Your task to perform on an android device: turn vacation reply on in the gmail app Image 0: 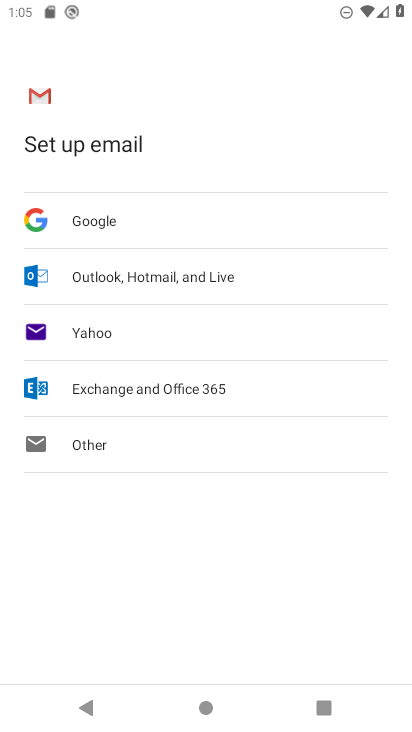
Step 0: press home button
Your task to perform on an android device: turn vacation reply on in the gmail app Image 1: 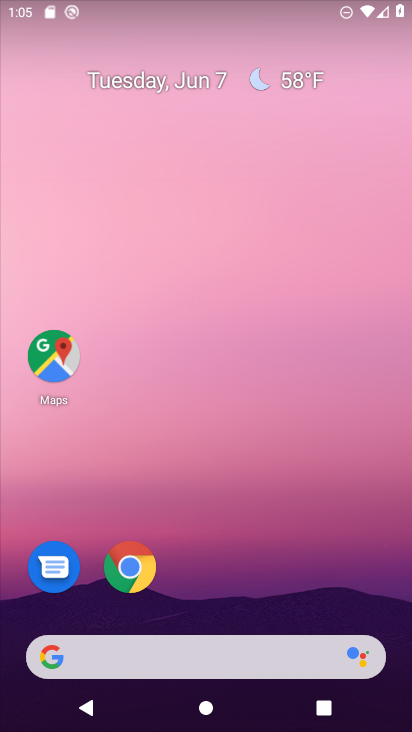
Step 1: drag from (380, 477) to (363, 105)
Your task to perform on an android device: turn vacation reply on in the gmail app Image 2: 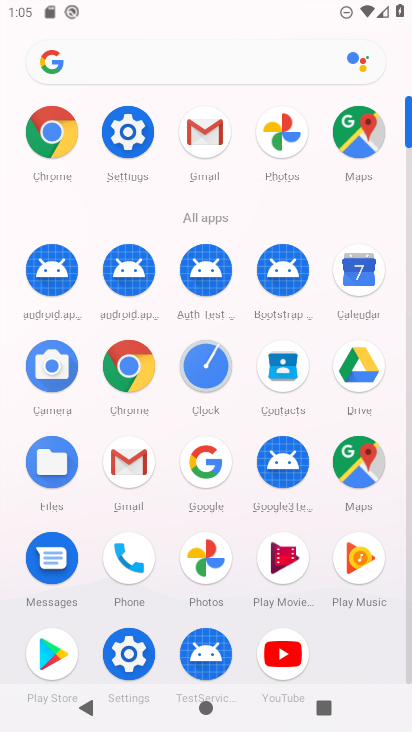
Step 2: click (190, 461)
Your task to perform on an android device: turn vacation reply on in the gmail app Image 3: 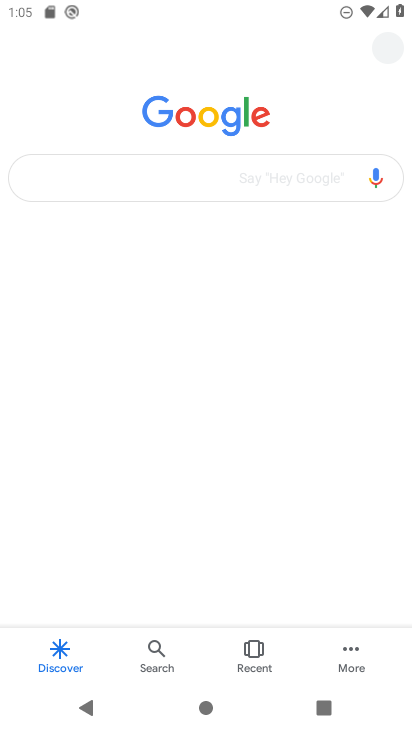
Step 3: press back button
Your task to perform on an android device: turn vacation reply on in the gmail app Image 4: 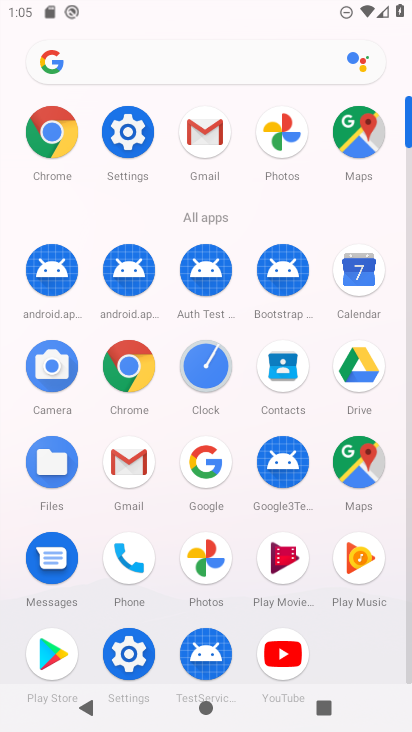
Step 4: click (346, 270)
Your task to perform on an android device: turn vacation reply on in the gmail app Image 5: 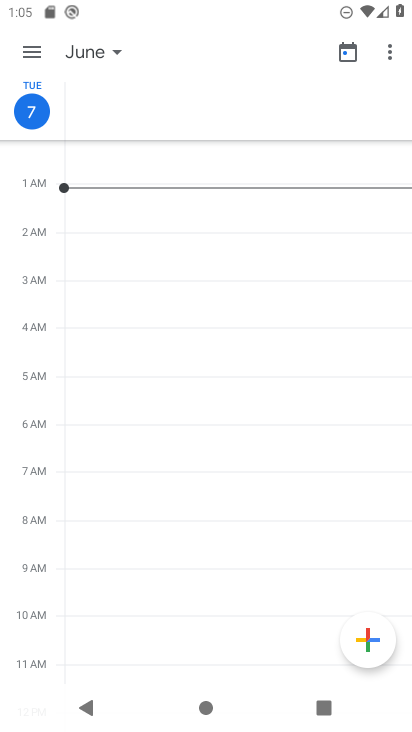
Step 5: press back button
Your task to perform on an android device: turn vacation reply on in the gmail app Image 6: 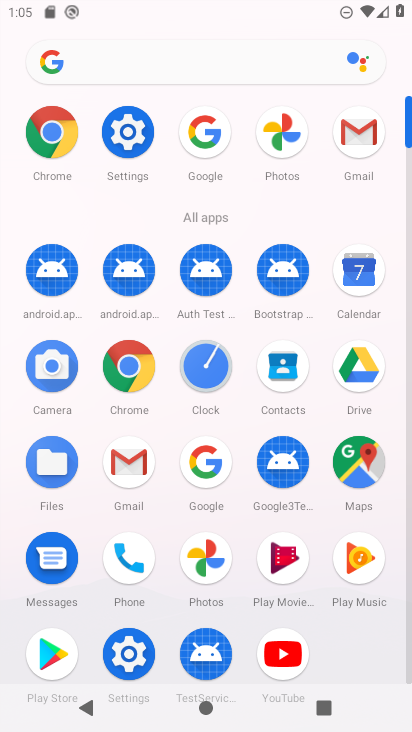
Step 6: click (137, 463)
Your task to perform on an android device: turn vacation reply on in the gmail app Image 7: 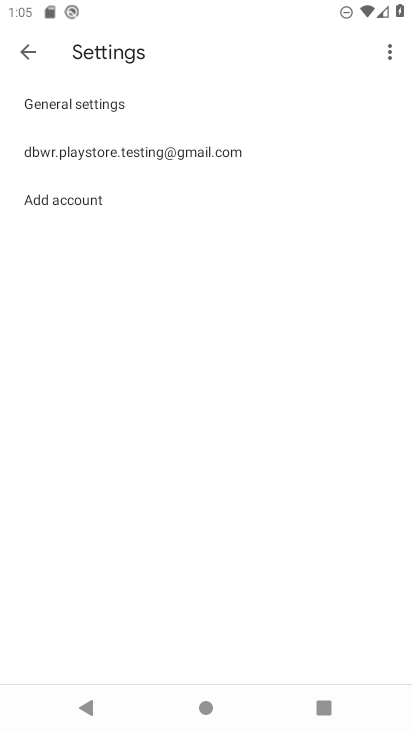
Step 7: click (80, 99)
Your task to perform on an android device: turn vacation reply on in the gmail app Image 8: 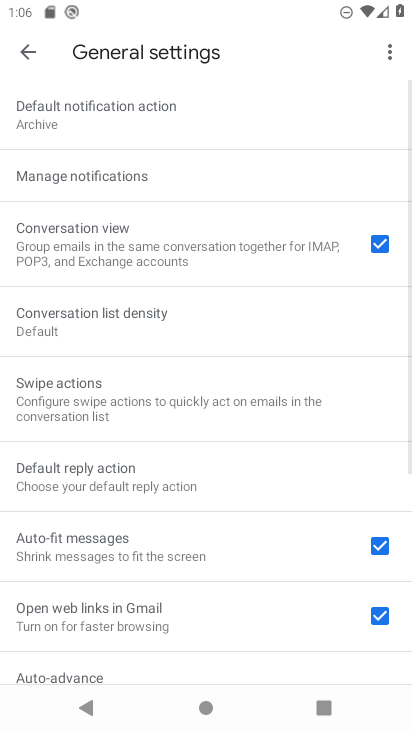
Step 8: drag from (183, 597) to (182, 342)
Your task to perform on an android device: turn vacation reply on in the gmail app Image 9: 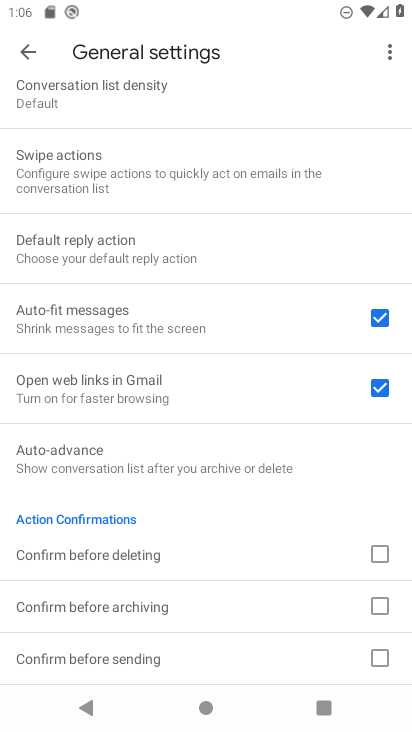
Step 9: drag from (162, 593) to (187, 265)
Your task to perform on an android device: turn vacation reply on in the gmail app Image 10: 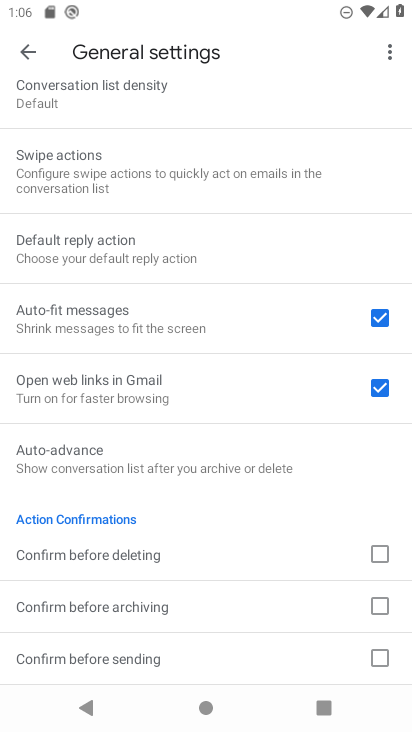
Step 10: drag from (237, 638) to (236, 207)
Your task to perform on an android device: turn vacation reply on in the gmail app Image 11: 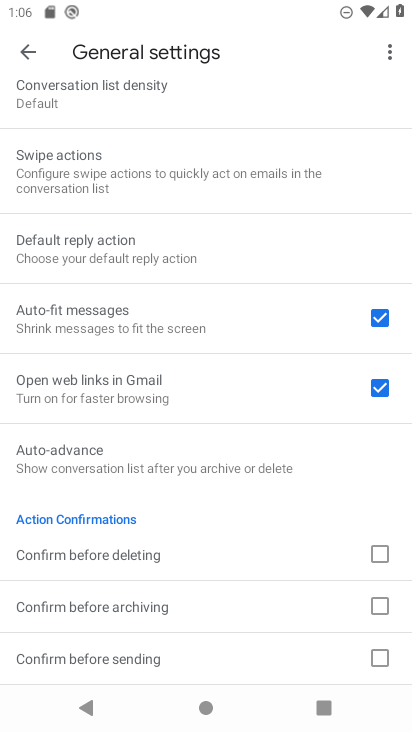
Step 11: drag from (190, 582) to (204, 290)
Your task to perform on an android device: turn vacation reply on in the gmail app Image 12: 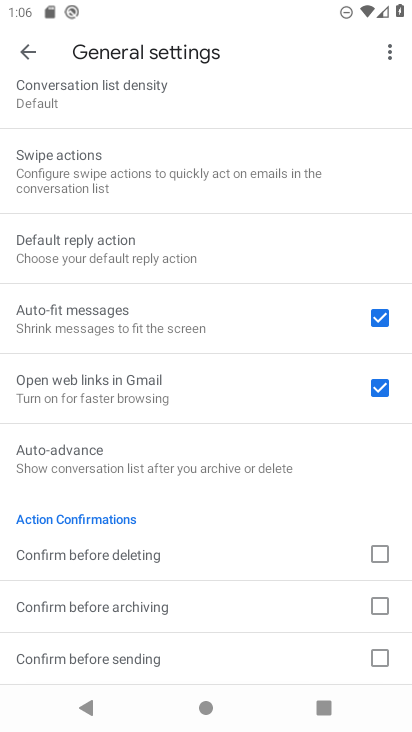
Step 12: click (17, 50)
Your task to perform on an android device: turn vacation reply on in the gmail app Image 13: 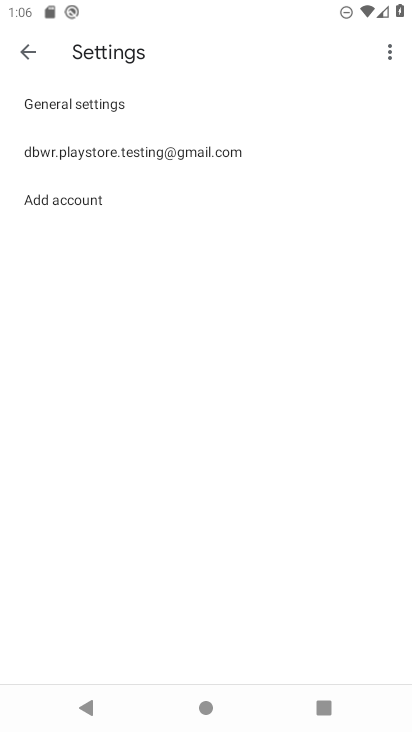
Step 13: click (69, 150)
Your task to perform on an android device: turn vacation reply on in the gmail app Image 14: 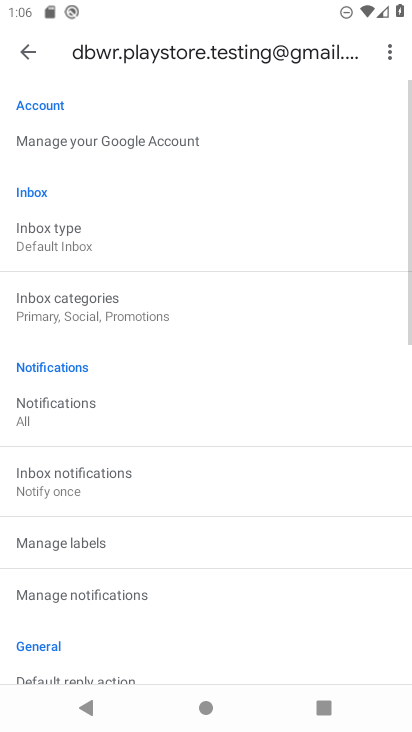
Step 14: drag from (253, 660) to (243, 154)
Your task to perform on an android device: turn vacation reply on in the gmail app Image 15: 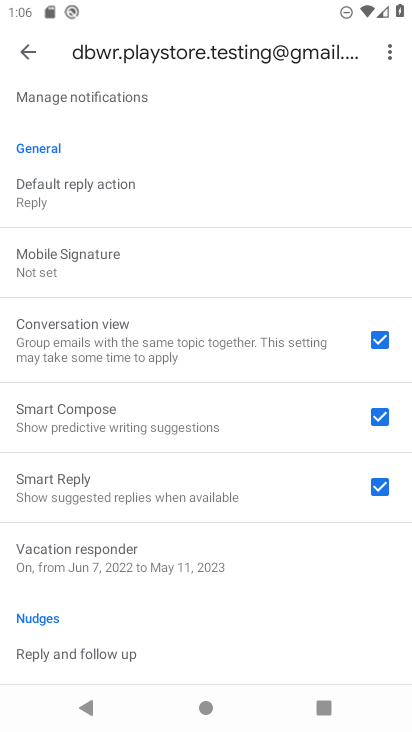
Step 15: click (63, 553)
Your task to perform on an android device: turn vacation reply on in the gmail app Image 16: 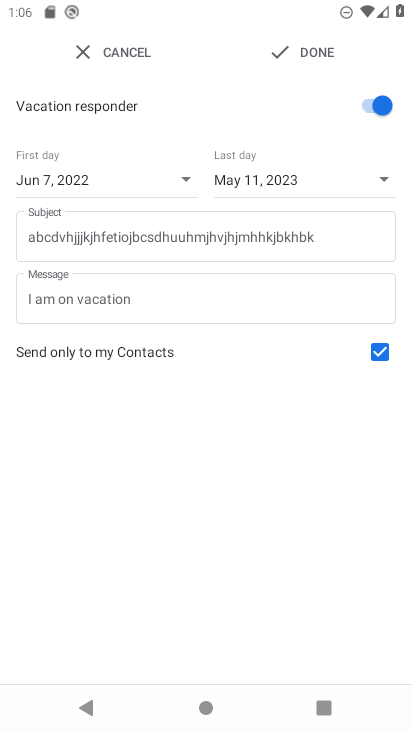
Step 16: task complete